Your task to perform on an android device: allow cookies in the chrome app Image 0: 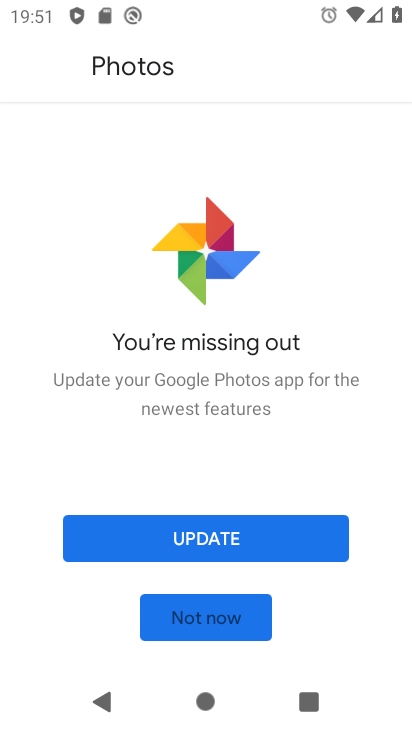
Step 0: press home button
Your task to perform on an android device: allow cookies in the chrome app Image 1: 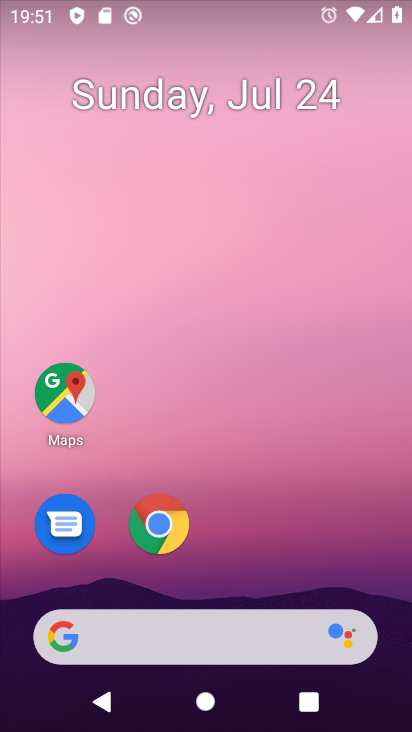
Step 1: click (163, 529)
Your task to perform on an android device: allow cookies in the chrome app Image 2: 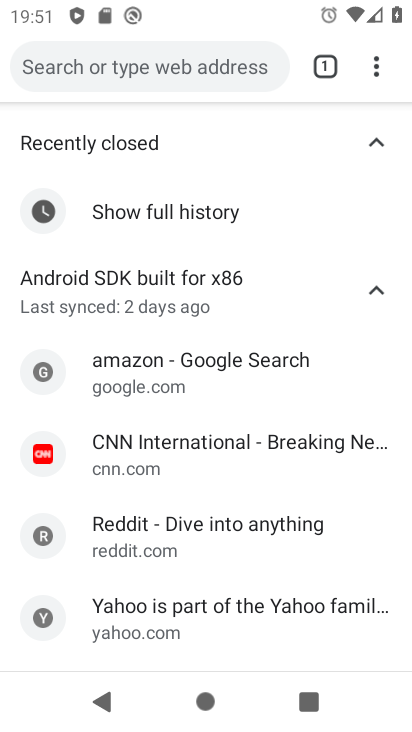
Step 2: click (371, 63)
Your task to perform on an android device: allow cookies in the chrome app Image 3: 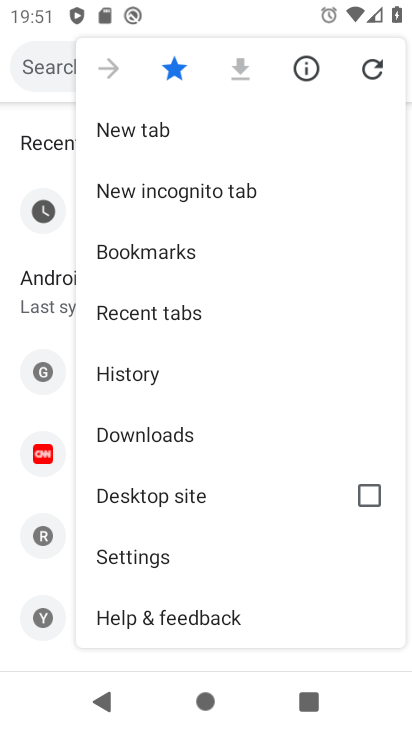
Step 3: click (162, 558)
Your task to perform on an android device: allow cookies in the chrome app Image 4: 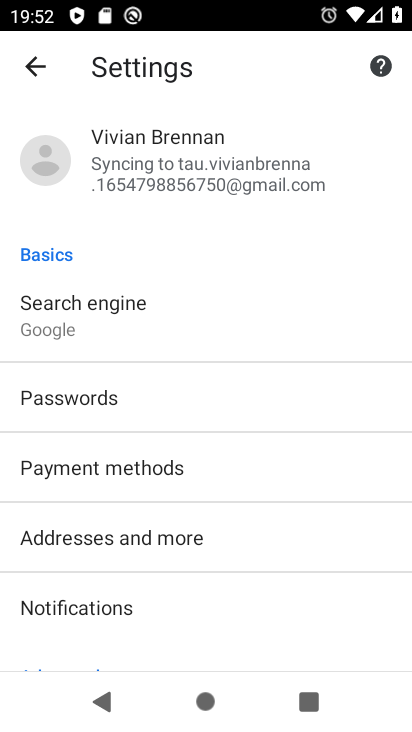
Step 4: drag from (235, 589) to (259, 149)
Your task to perform on an android device: allow cookies in the chrome app Image 5: 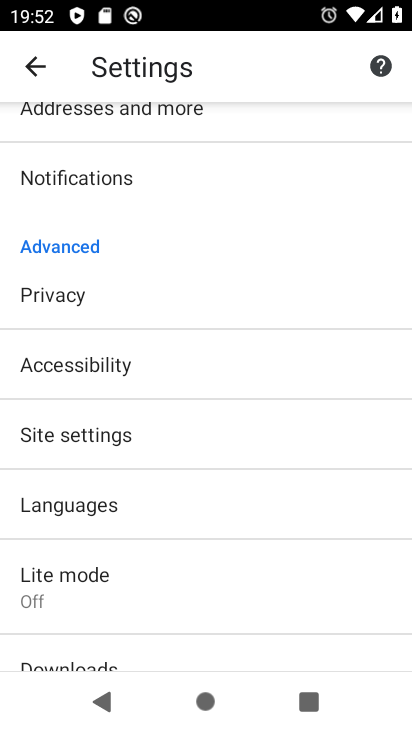
Step 5: drag from (233, 601) to (226, 269)
Your task to perform on an android device: allow cookies in the chrome app Image 6: 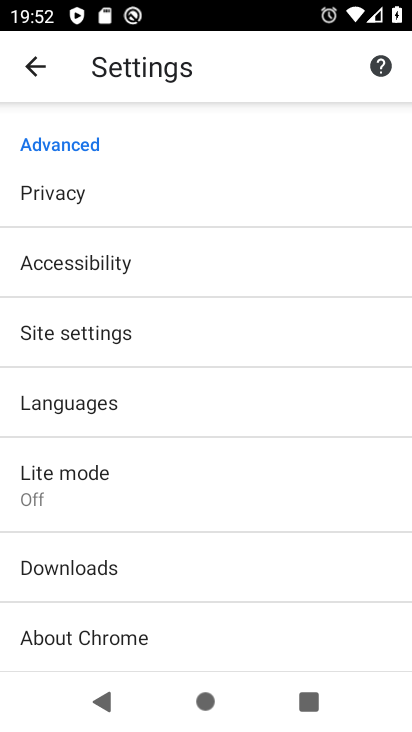
Step 6: click (123, 323)
Your task to perform on an android device: allow cookies in the chrome app Image 7: 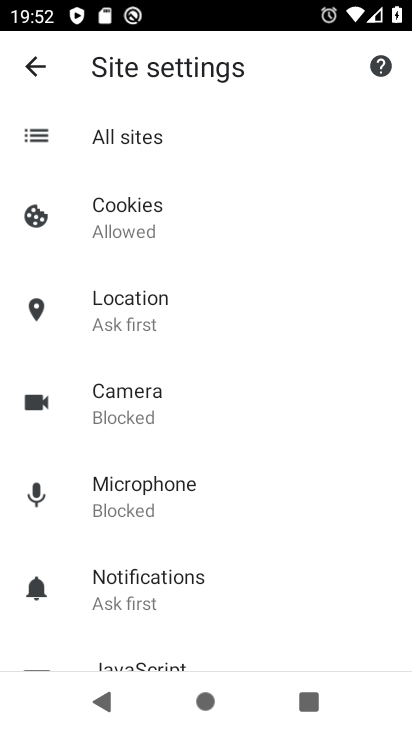
Step 7: click (133, 221)
Your task to perform on an android device: allow cookies in the chrome app Image 8: 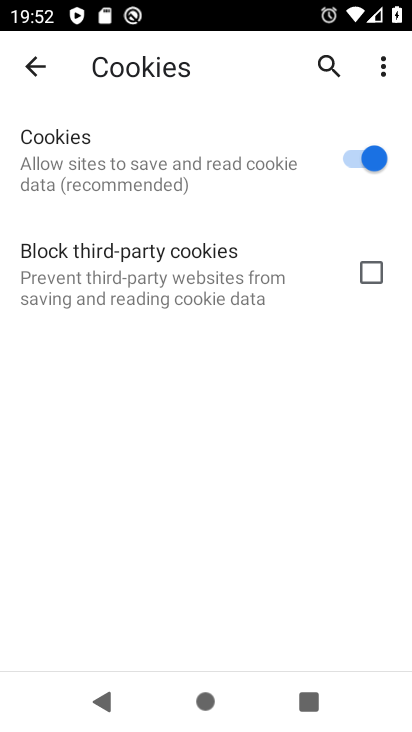
Step 8: task complete